Your task to perform on an android device: turn off priority inbox in the gmail app Image 0: 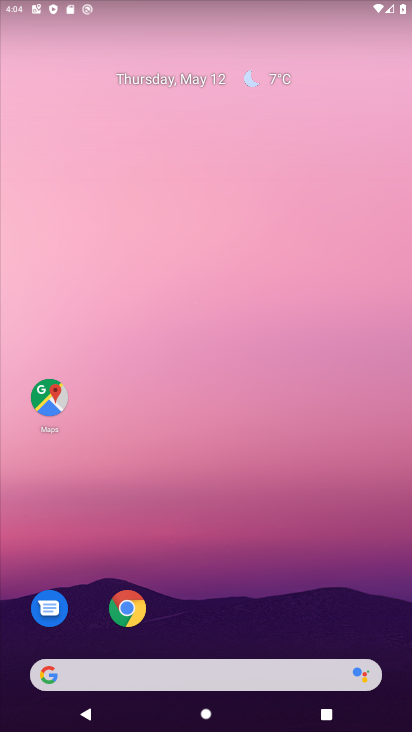
Step 0: drag from (242, 638) to (247, 348)
Your task to perform on an android device: turn off priority inbox in the gmail app Image 1: 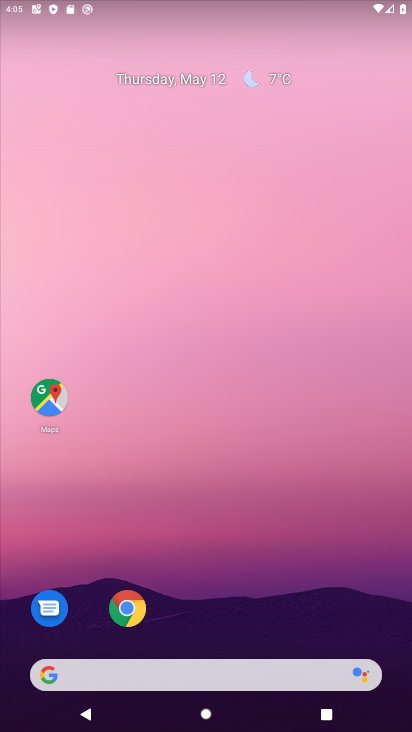
Step 1: drag from (270, 628) to (254, 9)
Your task to perform on an android device: turn off priority inbox in the gmail app Image 2: 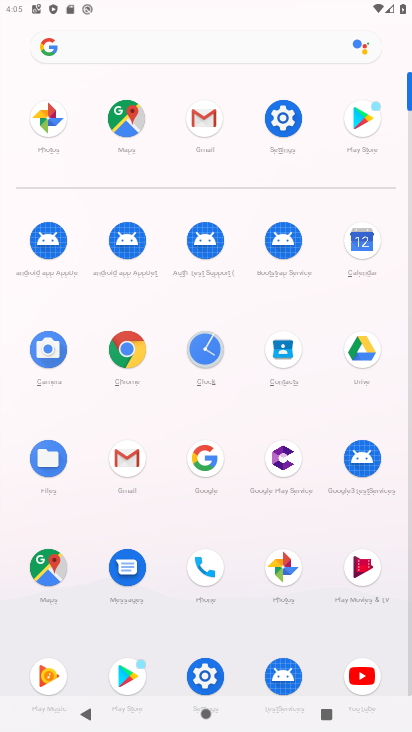
Step 2: click (217, 119)
Your task to perform on an android device: turn off priority inbox in the gmail app Image 3: 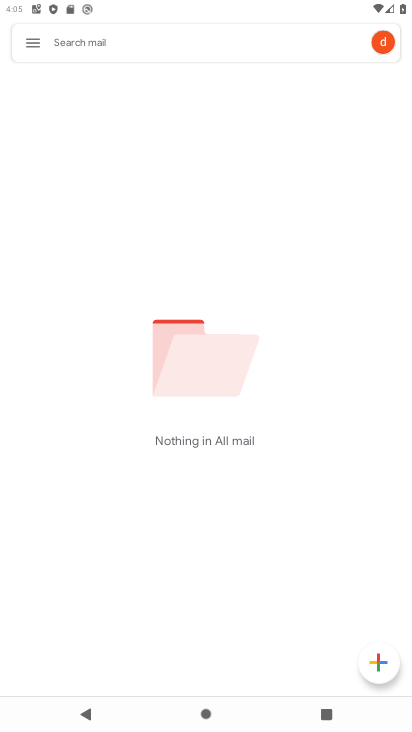
Step 3: click (34, 34)
Your task to perform on an android device: turn off priority inbox in the gmail app Image 4: 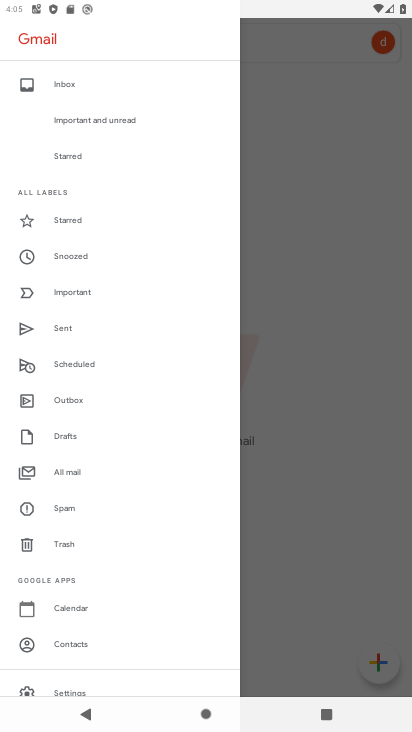
Step 4: click (82, 693)
Your task to perform on an android device: turn off priority inbox in the gmail app Image 5: 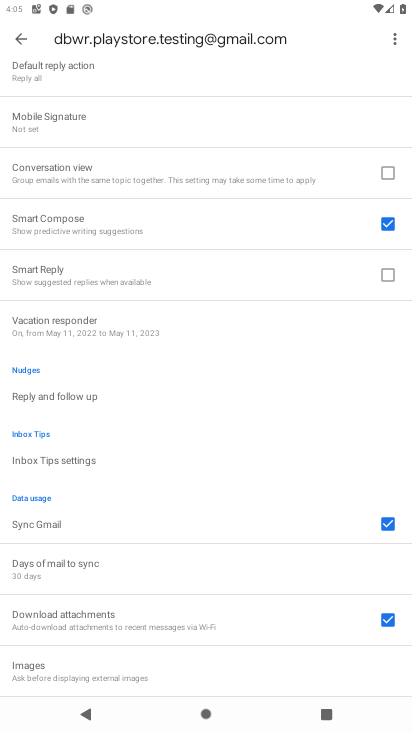
Step 5: drag from (133, 599) to (229, 165)
Your task to perform on an android device: turn off priority inbox in the gmail app Image 6: 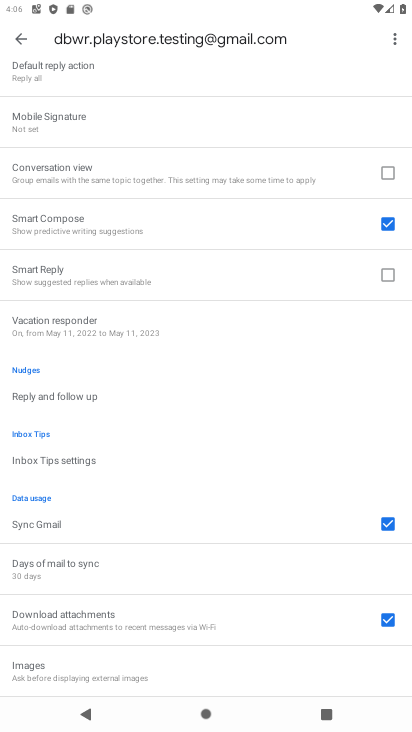
Step 6: drag from (165, 88) to (263, 690)
Your task to perform on an android device: turn off priority inbox in the gmail app Image 7: 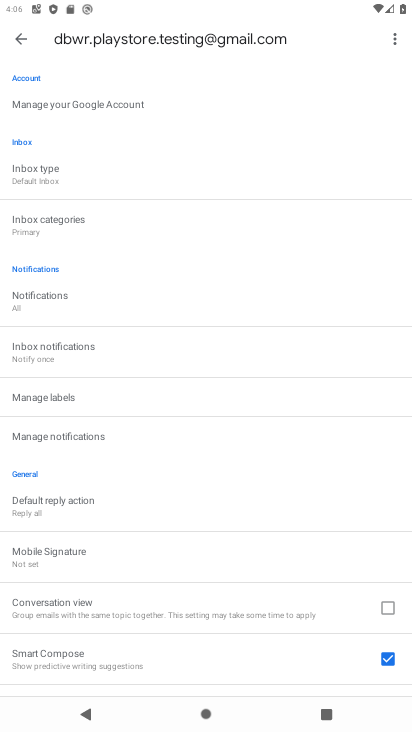
Step 7: click (48, 174)
Your task to perform on an android device: turn off priority inbox in the gmail app Image 8: 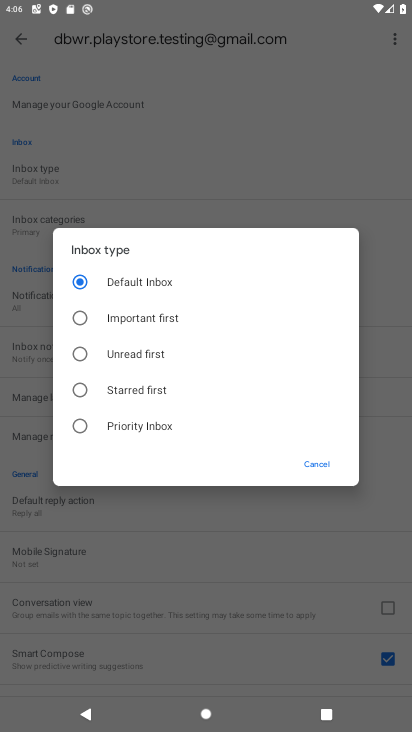
Step 8: task complete